Your task to perform on an android device: Open Wikipedia Image 0: 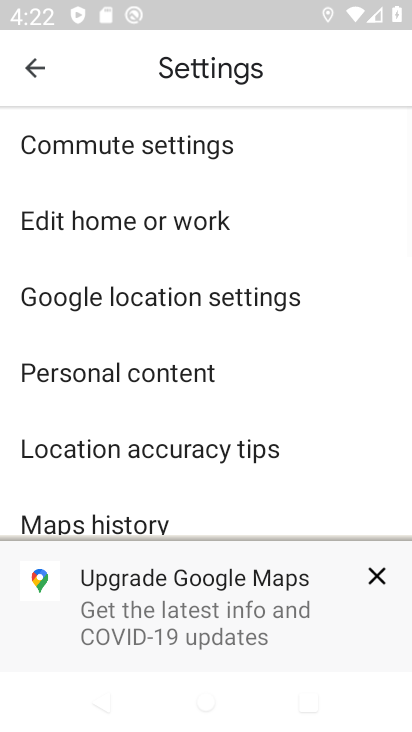
Step 0: press home button
Your task to perform on an android device: Open Wikipedia Image 1: 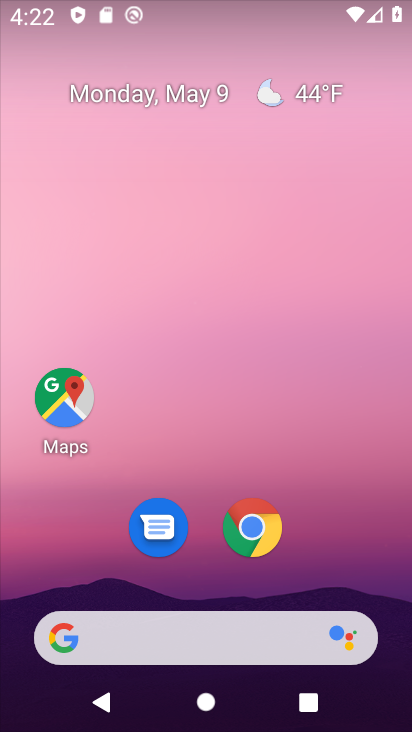
Step 1: click (161, 628)
Your task to perform on an android device: Open Wikipedia Image 2: 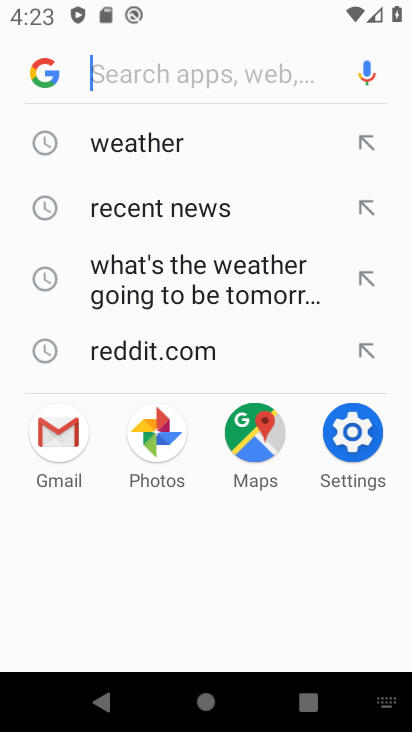
Step 2: type "wikipedia"
Your task to perform on an android device: Open Wikipedia Image 3: 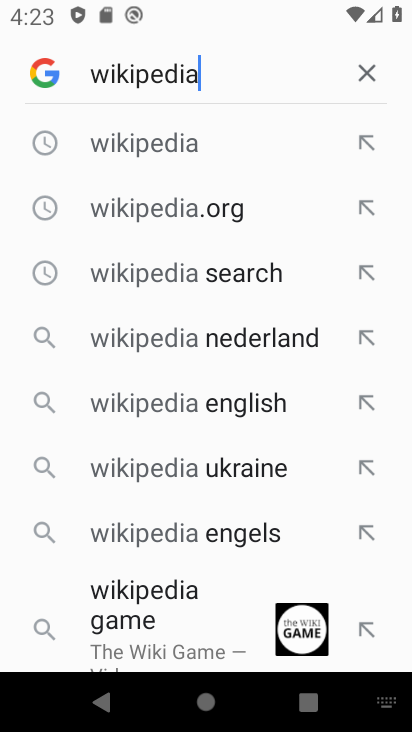
Step 3: click (186, 146)
Your task to perform on an android device: Open Wikipedia Image 4: 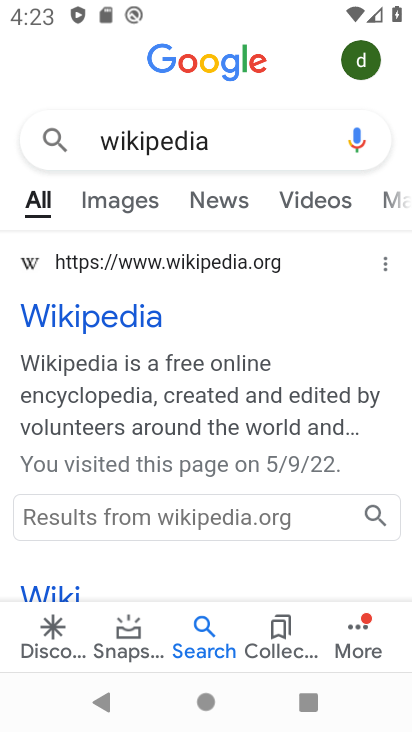
Step 4: click (153, 306)
Your task to perform on an android device: Open Wikipedia Image 5: 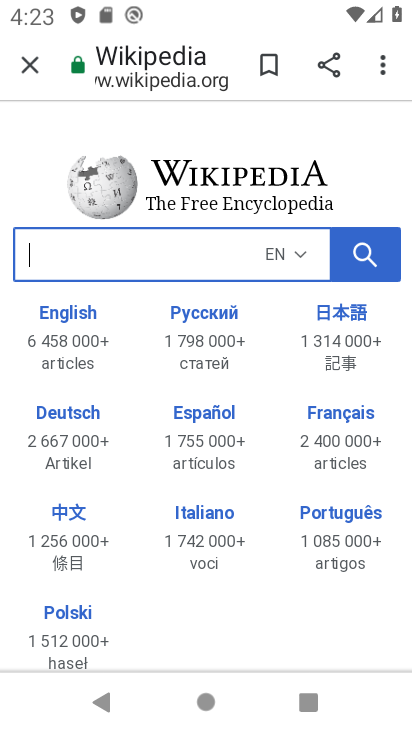
Step 5: task complete